Your task to perform on an android device: toggle notifications settings in the gmail app Image 0: 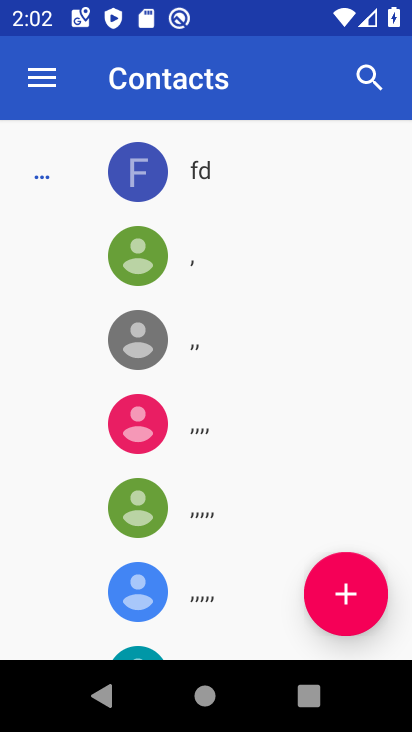
Step 0: press home button
Your task to perform on an android device: toggle notifications settings in the gmail app Image 1: 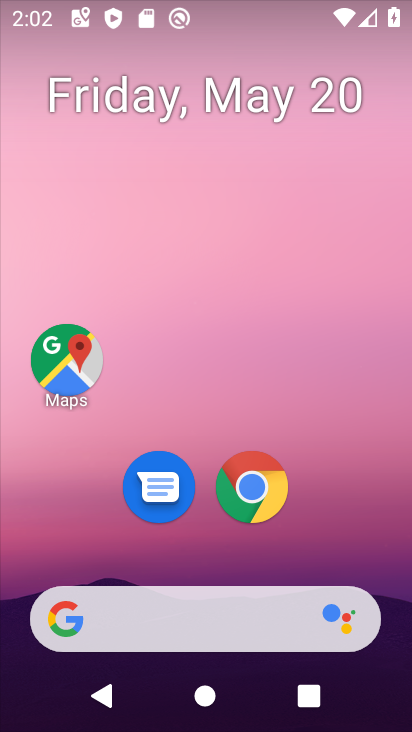
Step 1: drag from (362, 496) to (349, 62)
Your task to perform on an android device: toggle notifications settings in the gmail app Image 2: 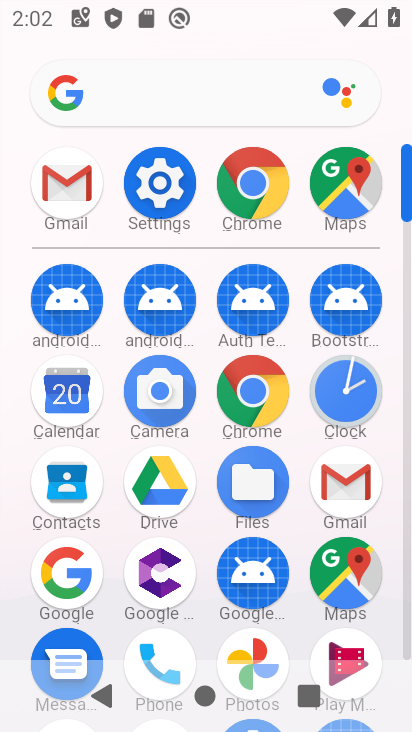
Step 2: click (98, 178)
Your task to perform on an android device: toggle notifications settings in the gmail app Image 3: 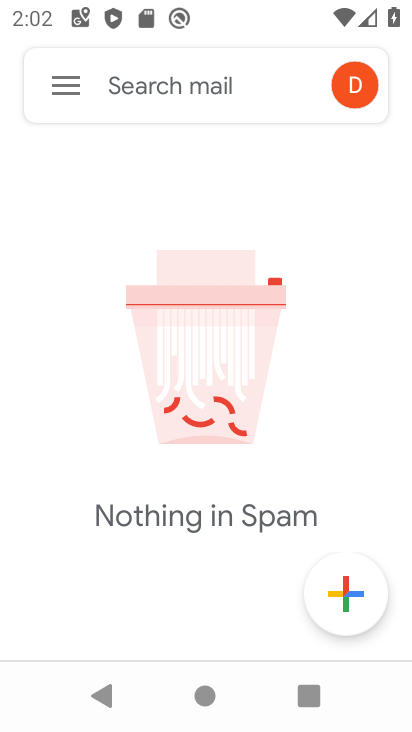
Step 3: click (66, 87)
Your task to perform on an android device: toggle notifications settings in the gmail app Image 4: 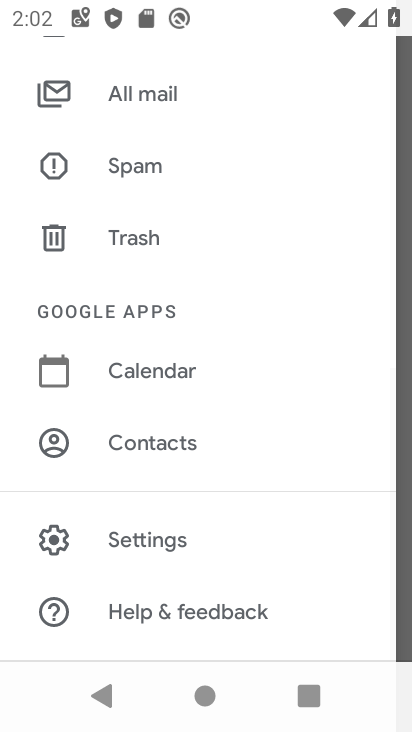
Step 4: click (117, 545)
Your task to perform on an android device: toggle notifications settings in the gmail app Image 5: 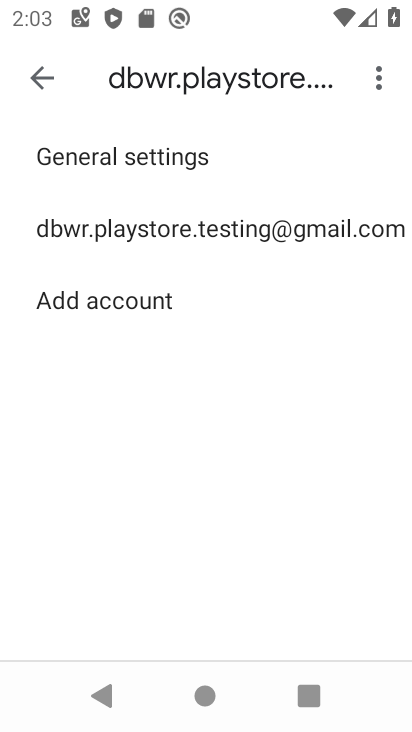
Step 5: click (124, 218)
Your task to perform on an android device: toggle notifications settings in the gmail app Image 6: 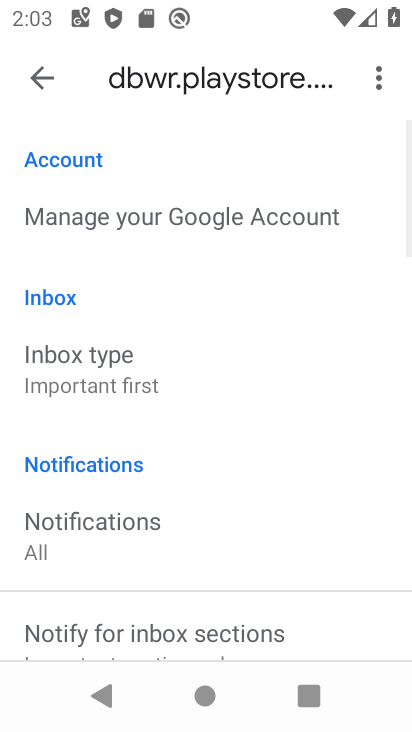
Step 6: click (135, 531)
Your task to perform on an android device: toggle notifications settings in the gmail app Image 7: 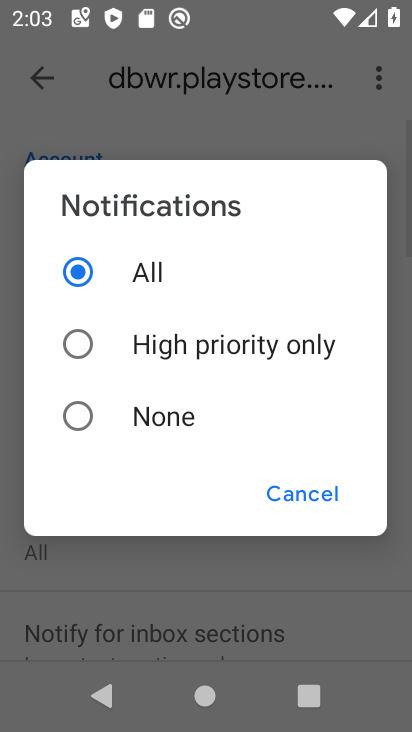
Step 7: click (99, 348)
Your task to perform on an android device: toggle notifications settings in the gmail app Image 8: 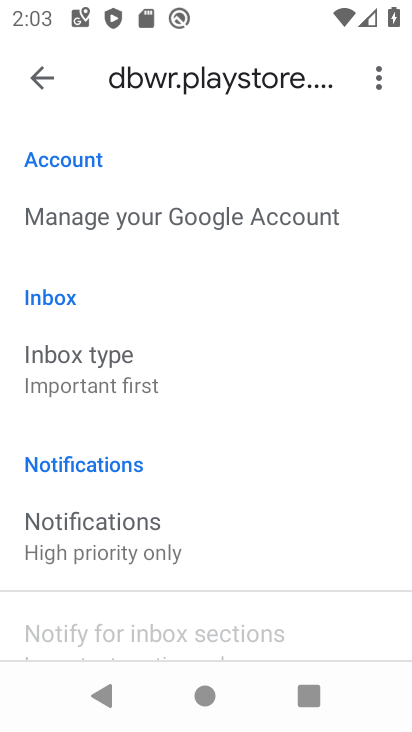
Step 8: task complete